Your task to perform on an android device: Open settings Image 0: 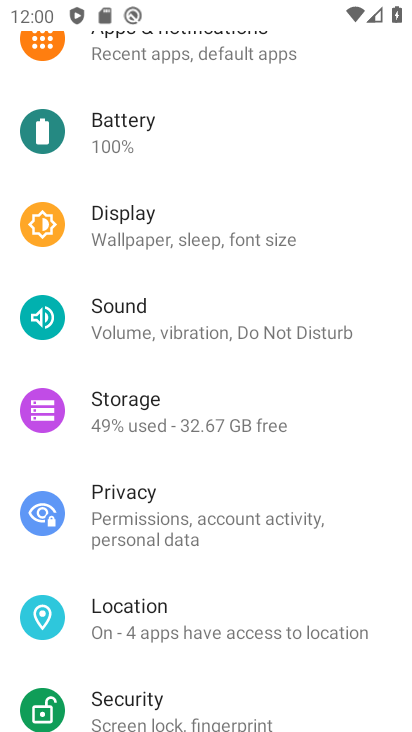
Step 0: press home button
Your task to perform on an android device: Open settings Image 1: 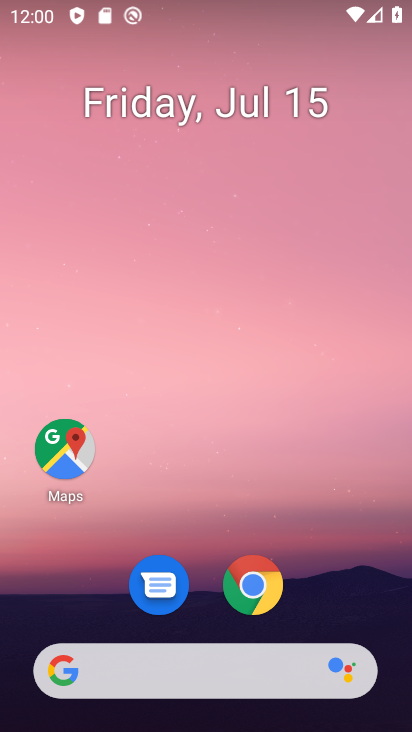
Step 1: drag from (342, 564) to (322, 49)
Your task to perform on an android device: Open settings Image 2: 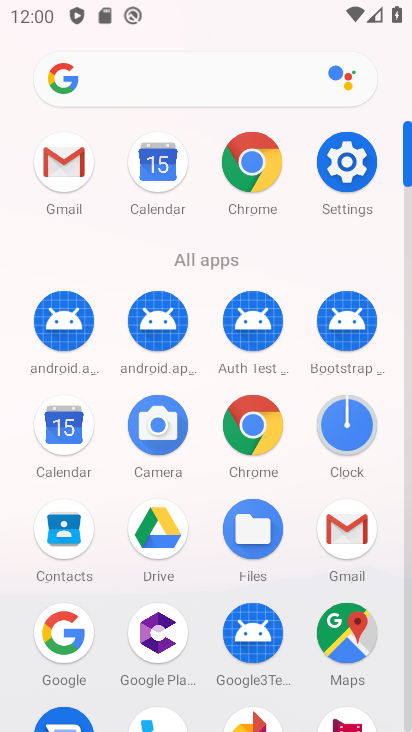
Step 2: click (350, 166)
Your task to perform on an android device: Open settings Image 3: 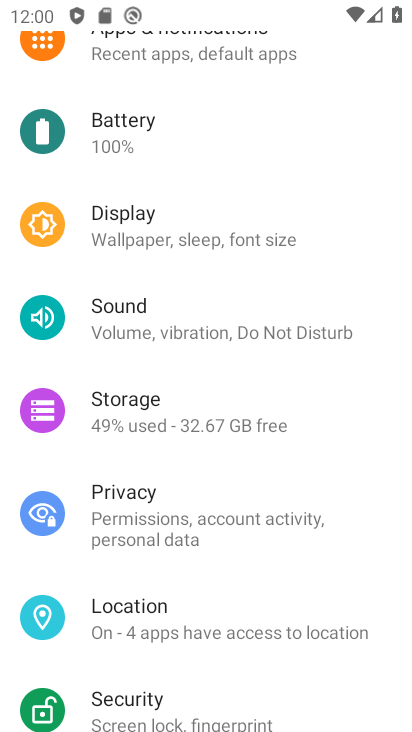
Step 3: task complete